Your task to perform on an android device: Open sound settings Image 0: 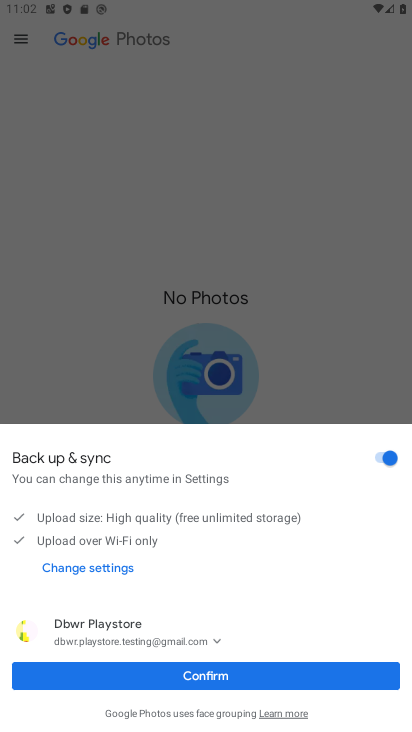
Step 0: press home button
Your task to perform on an android device: Open sound settings Image 1: 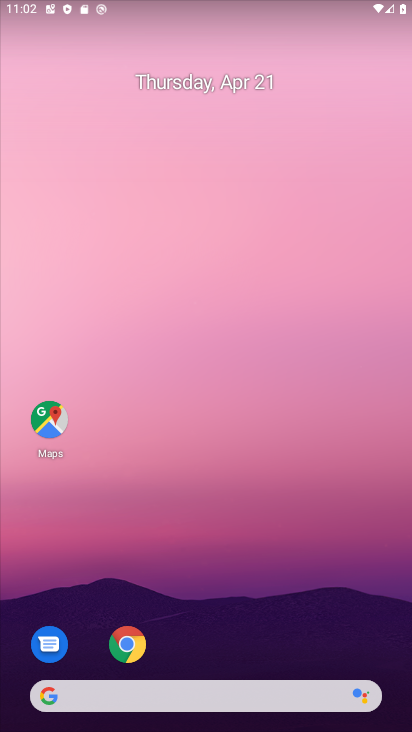
Step 1: drag from (220, 566) to (210, 295)
Your task to perform on an android device: Open sound settings Image 2: 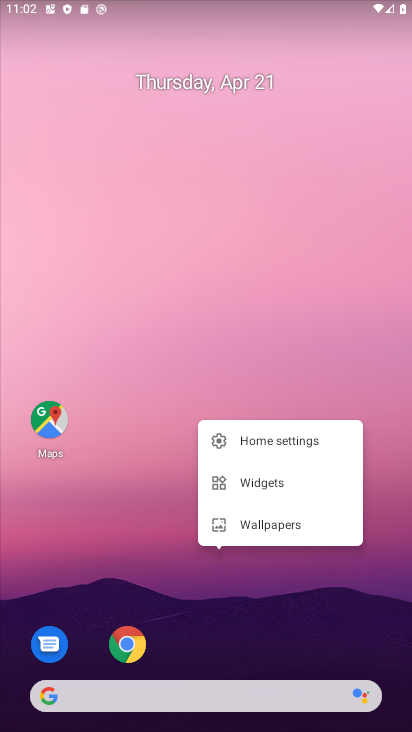
Step 2: click (322, 622)
Your task to perform on an android device: Open sound settings Image 3: 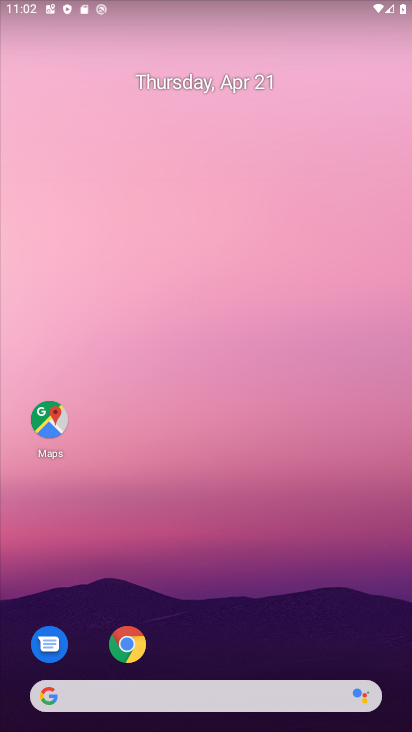
Step 3: drag from (322, 622) to (204, 155)
Your task to perform on an android device: Open sound settings Image 4: 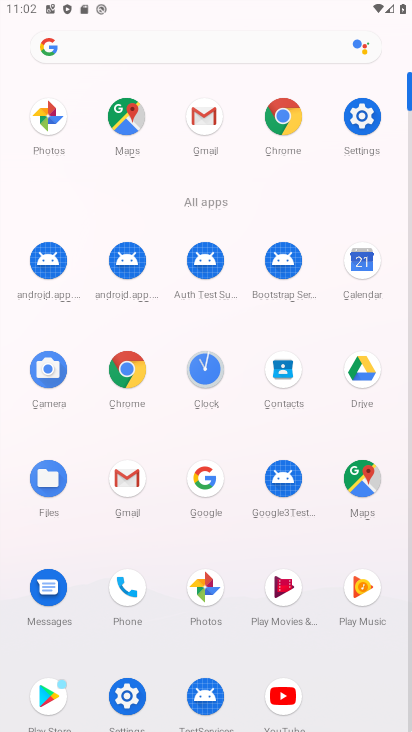
Step 4: click (363, 114)
Your task to perform on an android device: Open sound settings Image 5: 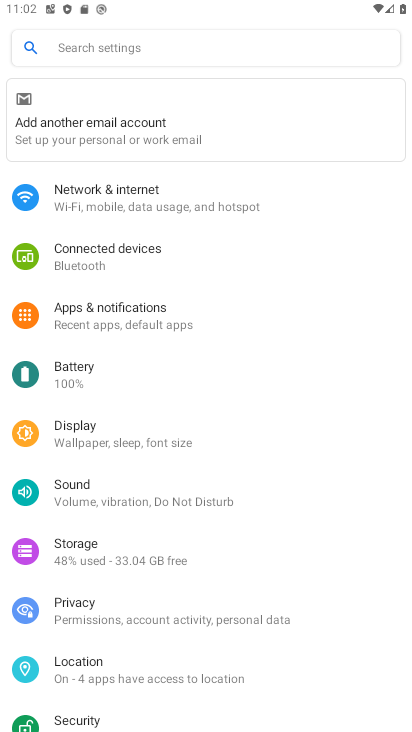
Step 5: click (215, 500)
Your task to perform on an android device: Open sound settings Image 6: 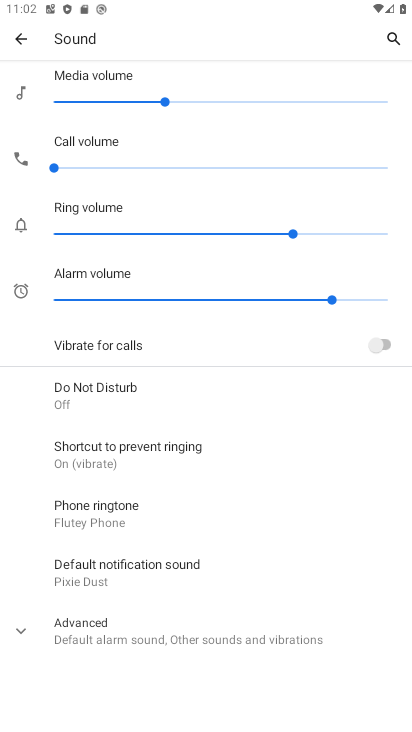
Step 6: task complete